Your task to perform on an android device: What's the weather today? Image 0: 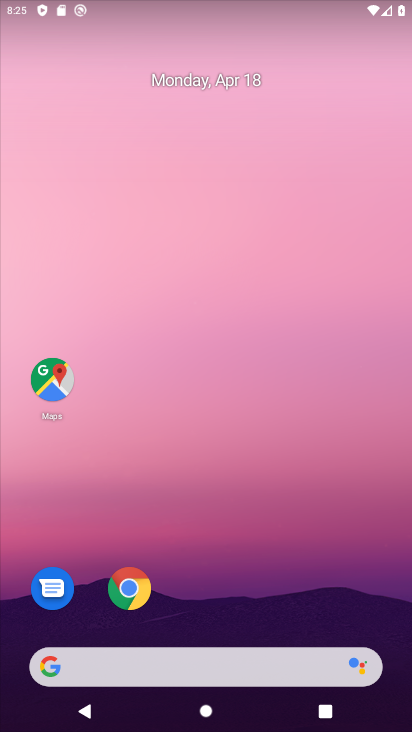
Step 0: click (128, 593)
Your task to perform on an android device: What's the weather today? Image 1: 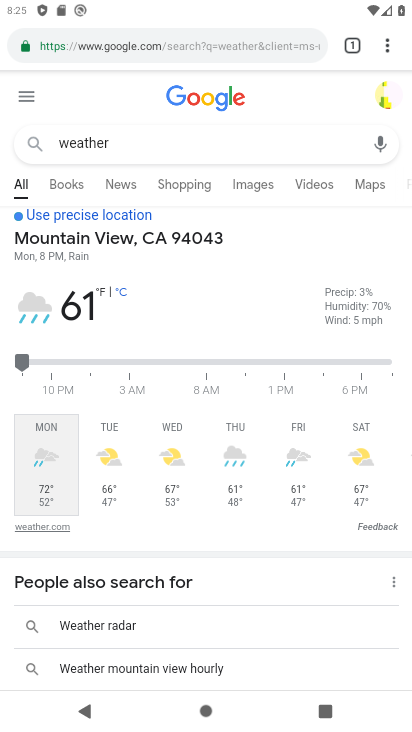
Step 1: task complete